Your task to perform on an android device: Go to sound settings Image 0: 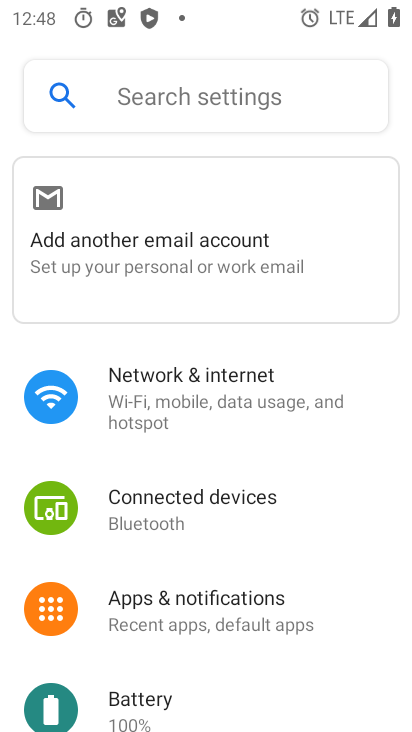
Step 0: drag from (224, 563) to (309, 121)
Your task to perform on an android device: Go to sound settings Image 1: 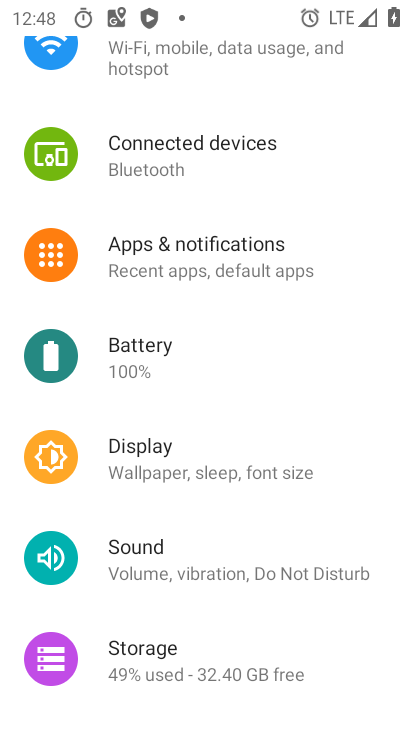
Step 1: click (165, 549)
Your task to perform on an android device: Go to sound settings Image 2: 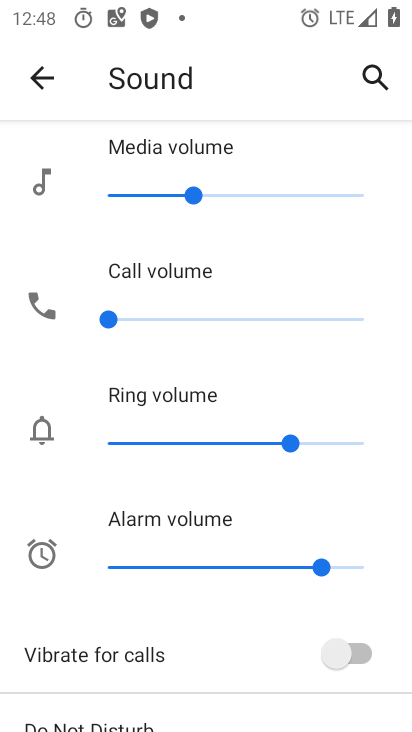
Step 2: task complete